Your task to perform on an android device: Open calendar and show me the second week of next month Image 0: 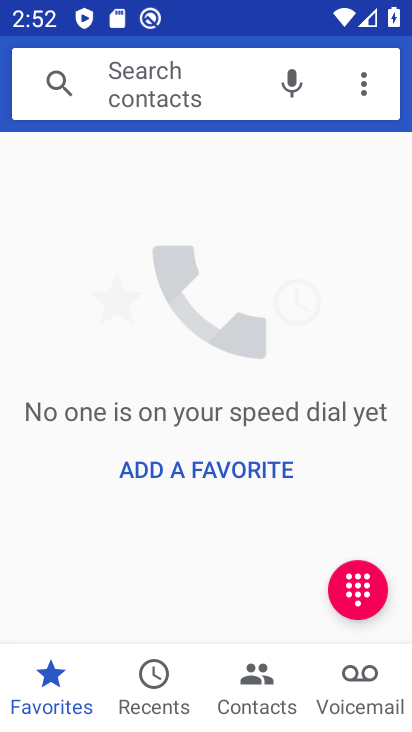
Step 0: press home button
Your task to perform on an android device: Open calendar and show me the second week of next month Image 1: 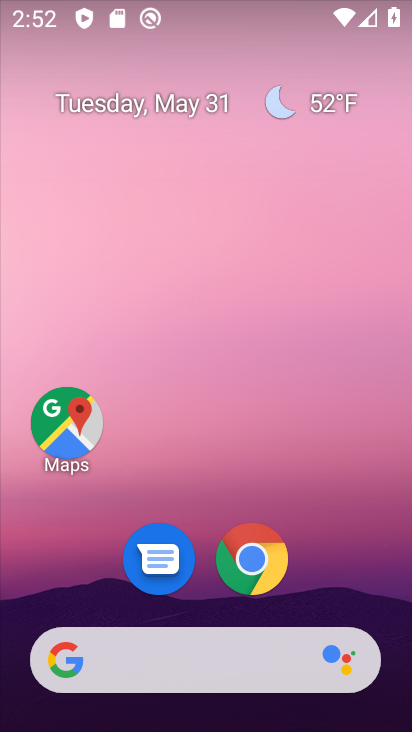
Step 1: drag from (193, 599) to (205, 166)
Your task to perform on an android device: Open calendar and show me the second week of next month Image 2: 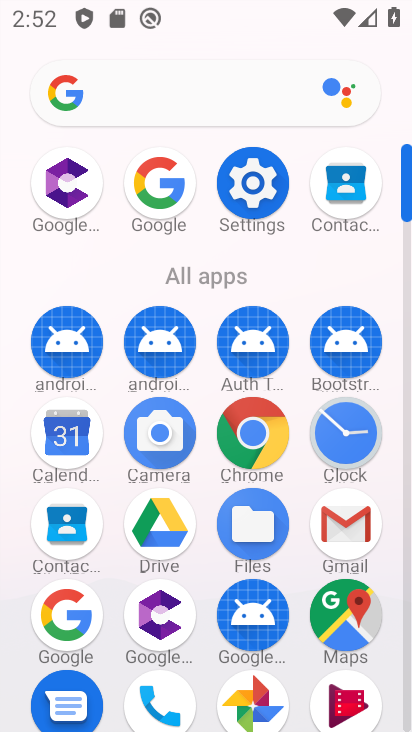
Step 2: click (47, 441)
Your task to perform on an android device: Open calendar and show me the second week of next month Image 3: 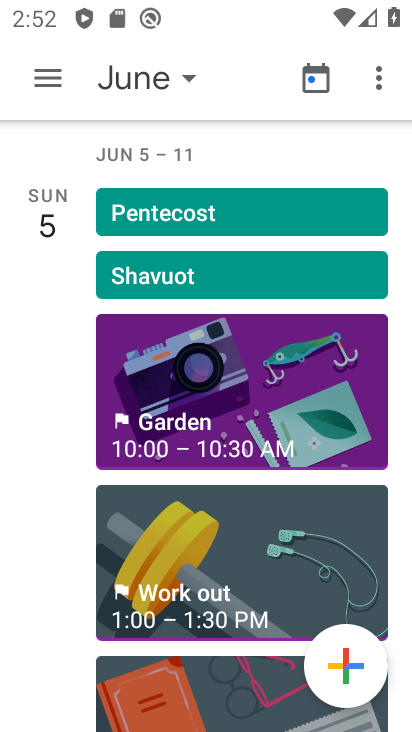
Step 3: click (173, 85)
Your task to perform on an android device: Open calendar and show me the second week of next month Image 4: 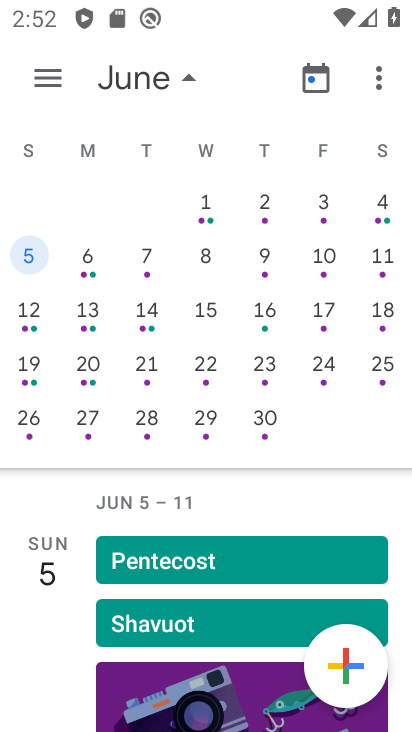
Step 4: click (35, 268)
Your task to perform on an android device: Open calendar and show me the second week of next month Image 5: 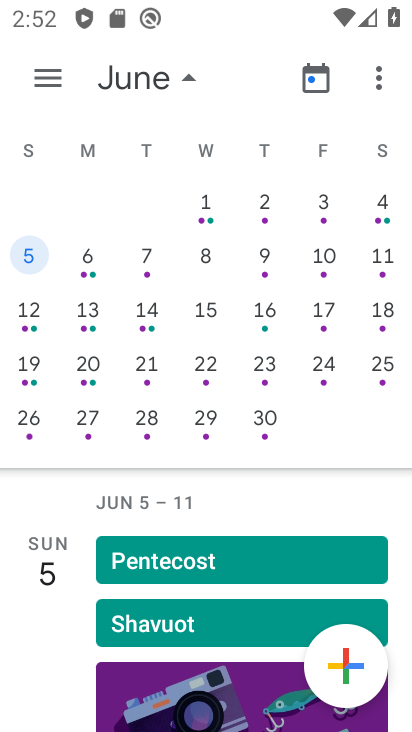
Step 5: task complete